Your task to perform on an android device: Go to internet settings Image 0: 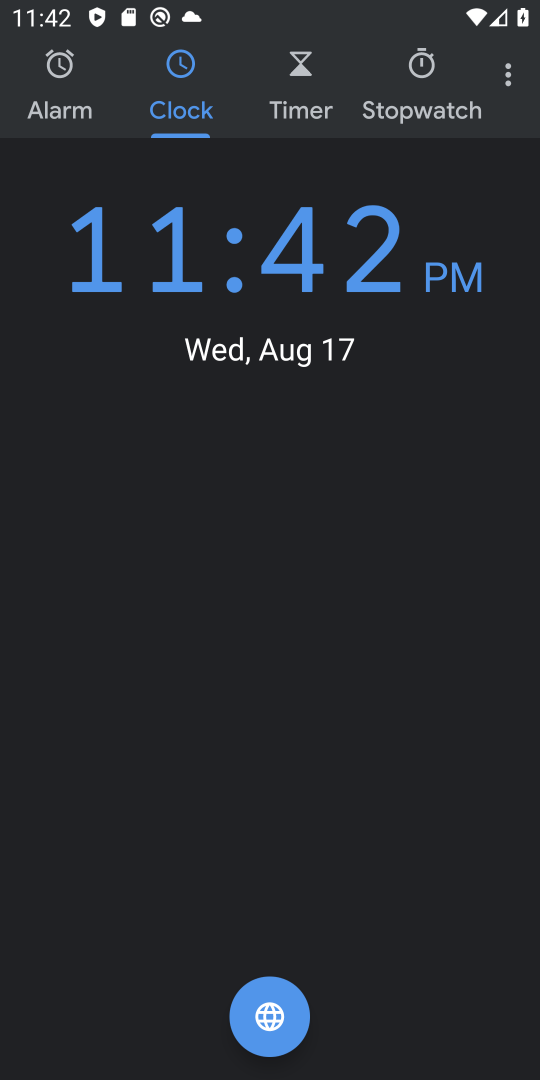
Step 0: press home button
Your task to perform on an android device: Go to internet settings Image 1: 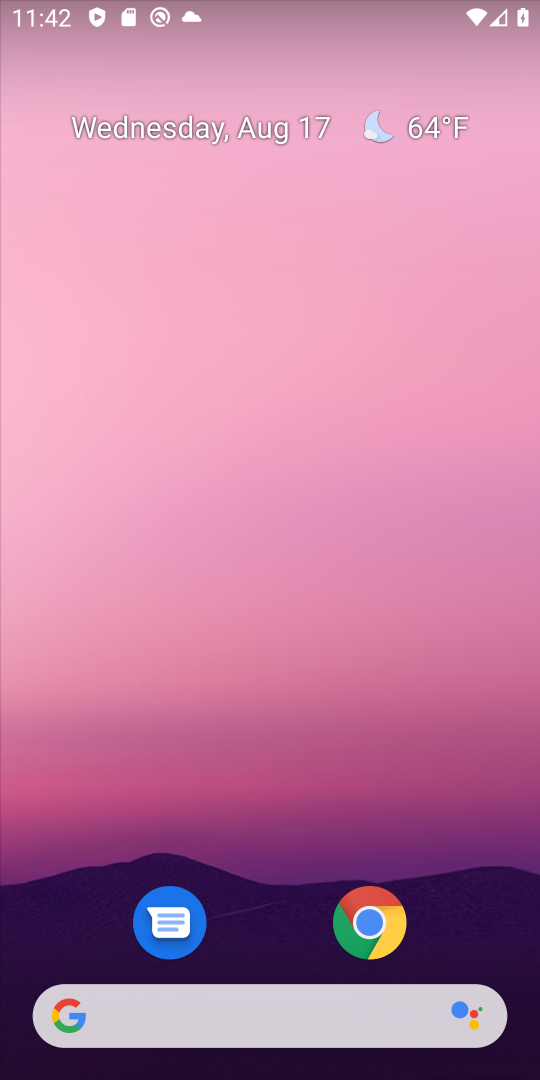
Step 1: drag from (251, 874) to (183, 238)
Your task to perform on an android device: Go to internet settings Image 2: 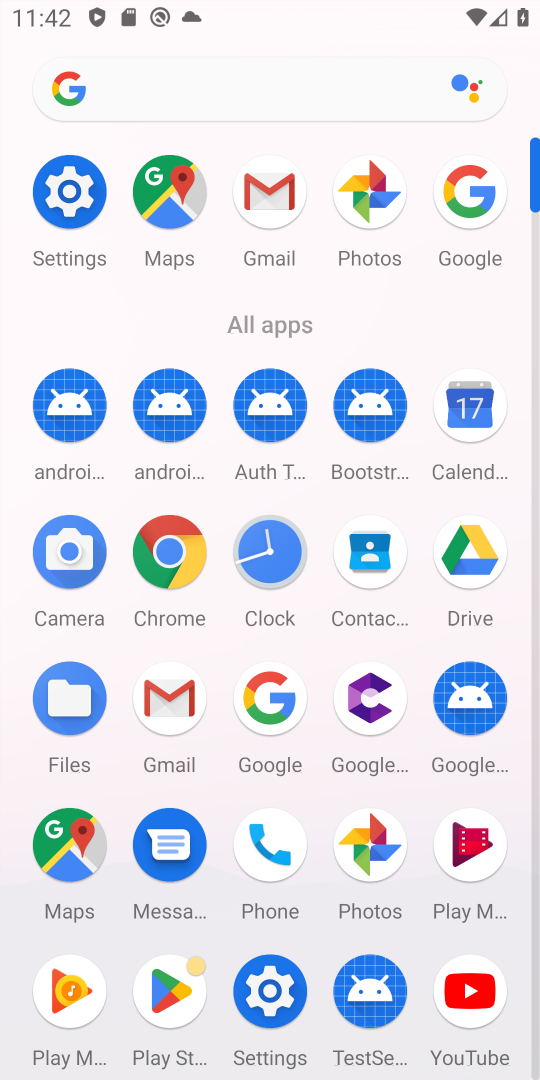
Step 2: click (64, 185)
Your task to perform on an android device: Go to internet settings Image 3: 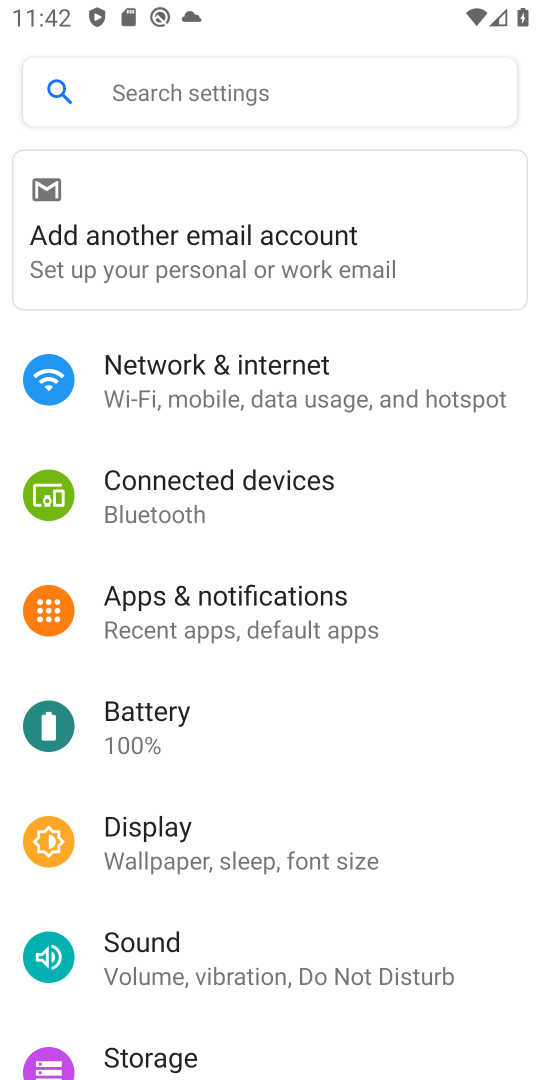
Step 3: click (197, 369)
Your task to perform on an android device: Go to internet settings Image 4: 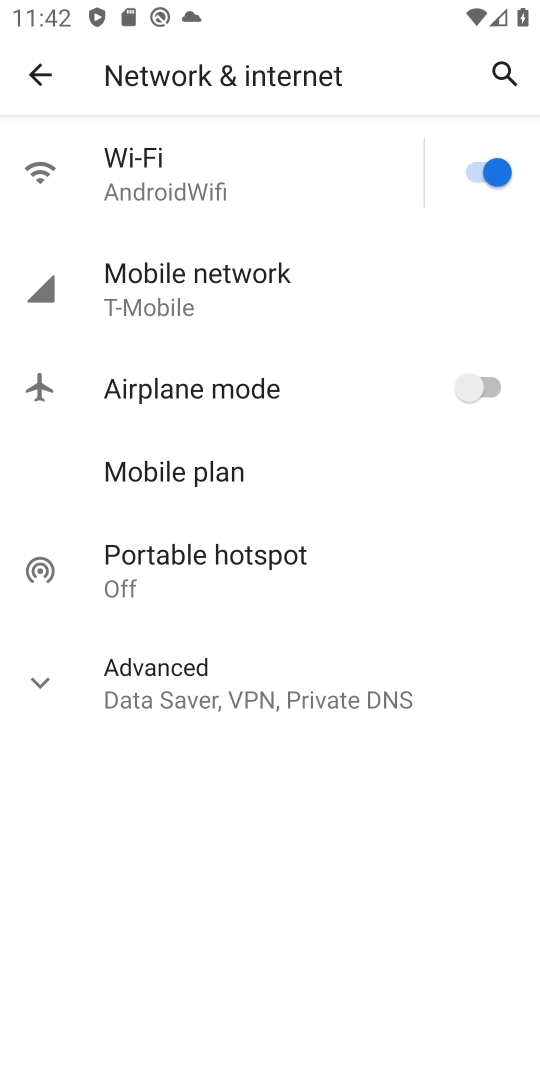
Step 4: task complete